Your task to perform on an android device: change the clock display to show seconds Image 0: 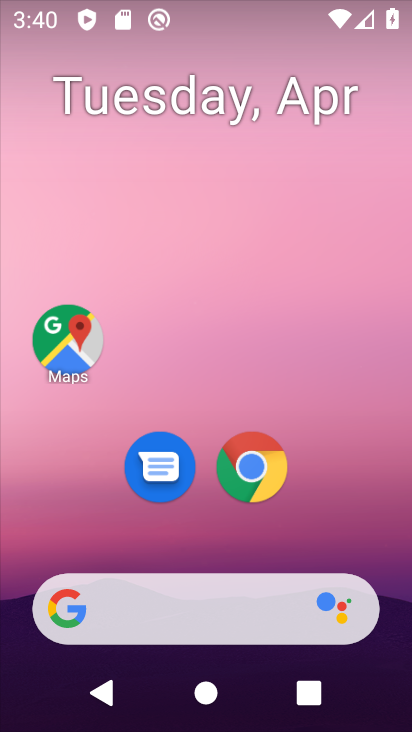
Step 0: drag from (214, 563) to (221, 230)
Your task to perform on an android device: change the clock display to show seconds Image 1: 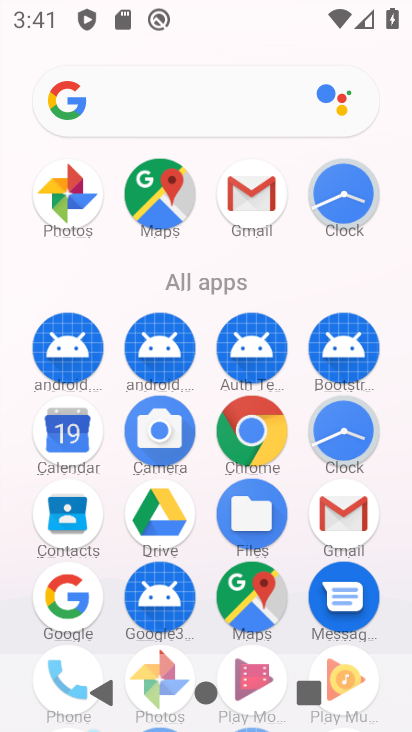
Step 1: click (354, 214)
Your task to perform on an android device: change the clock display to show seconds Image 2: 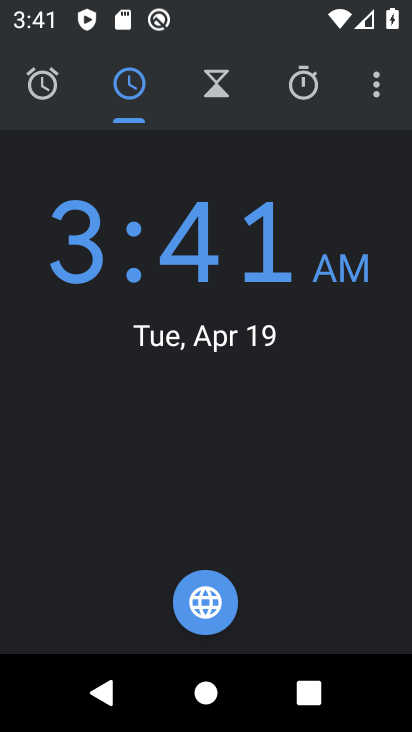
Step 2: click (368, 91)
Your task to perform on an android device: change the clock display to show seconds Image 3: 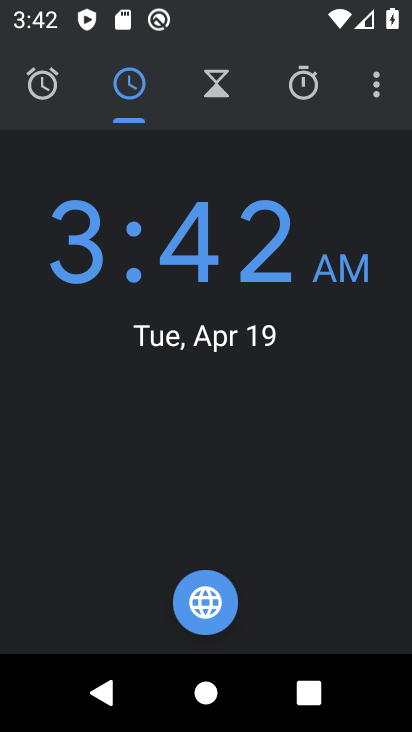
Step 3: click (380, 75)
Your task to perform on an android device: change the clock display to show seconds Image 4: 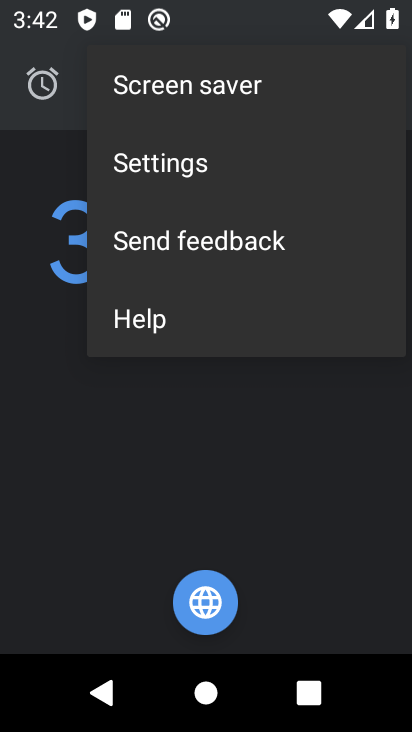
Step 4: click (281, 153)
Your task to perform on an android device: change the clock display to show seconds Image 5: 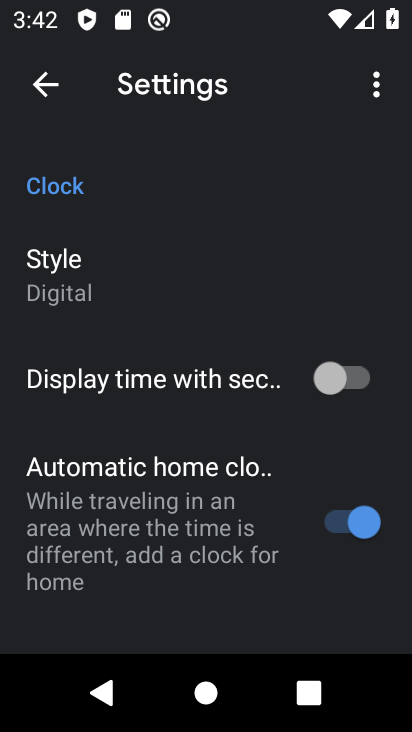
Step 5: click (371, 389)
Your task to perform on an android device: change the clock display to show seconds Image 6: 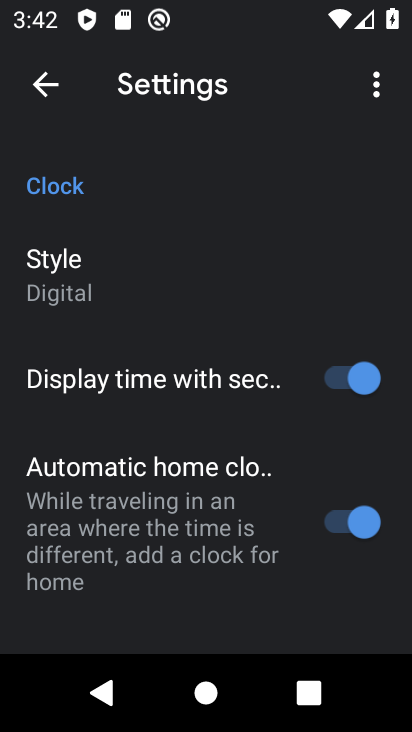
Step 6: task complete